Your task to perform on an android device: change the clock display to digital Image 0: 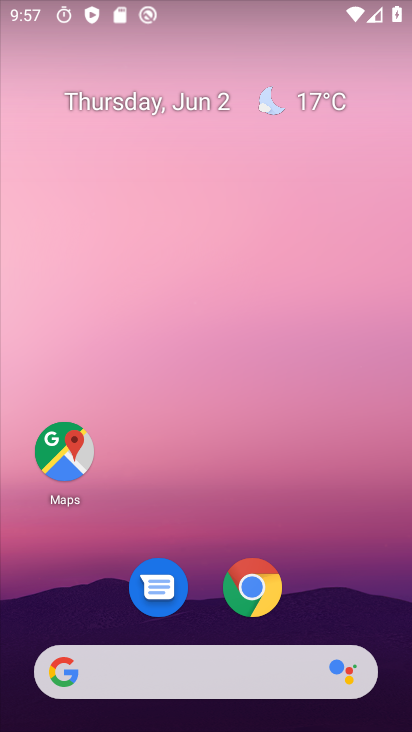
Step 0: drag from (206, 624) to (236, 157)
Your task to perform on an android device: change the clock display to digital Image 1: 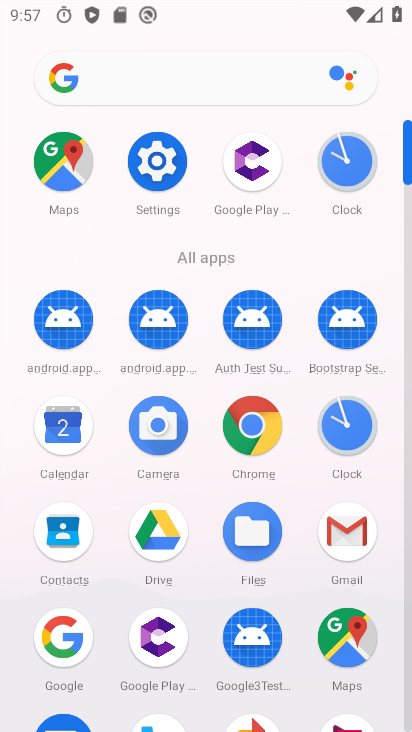
Step 1: click (342, 419)
Your task to perform on an android device: change the clock display to digital Image 2: 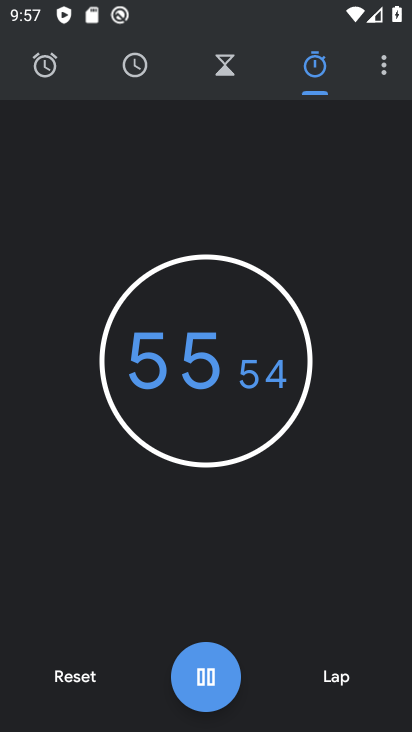
Step 2: click (384, 70)
Your task to perform on an android device: change the clock display to digital Image 3: 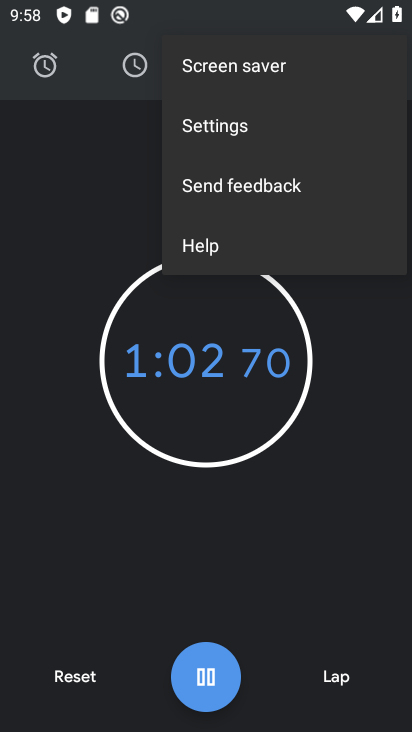
Step 3: click (263, 125)
Your task to perform on an android device: change the clock display to digital Image 4: 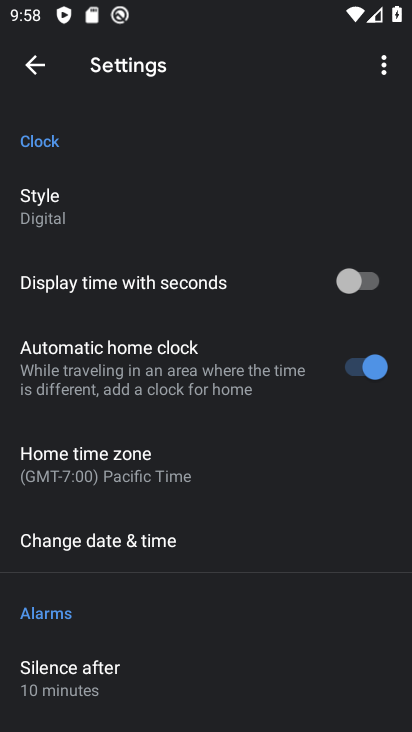
Step 4: click (103, 212)
Your task to perform on an android device: change the clock display to digital Image 5: 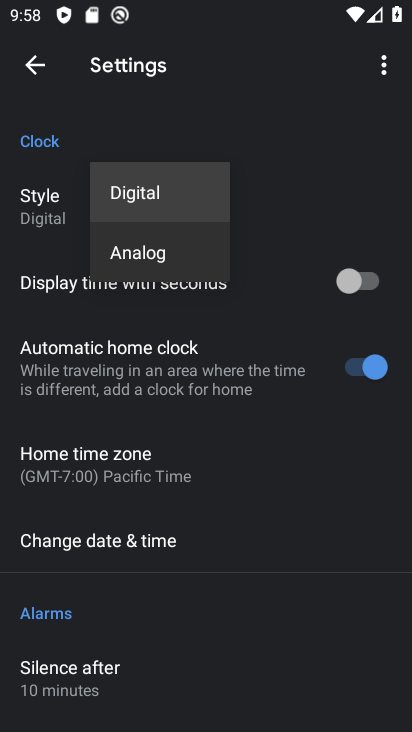
Step 5: click (156, 192)
Your task to perform on an android device: change the clock display to digital Image 6: 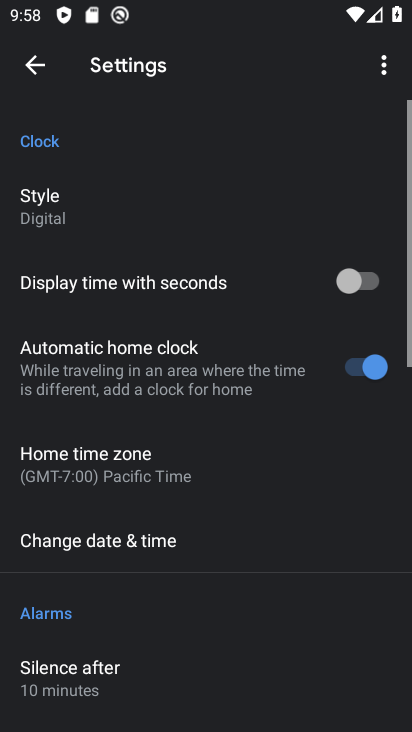
Step 6: task complete